Your task to perform on an android device: Open a new incognito window in the chrome app Image 0: 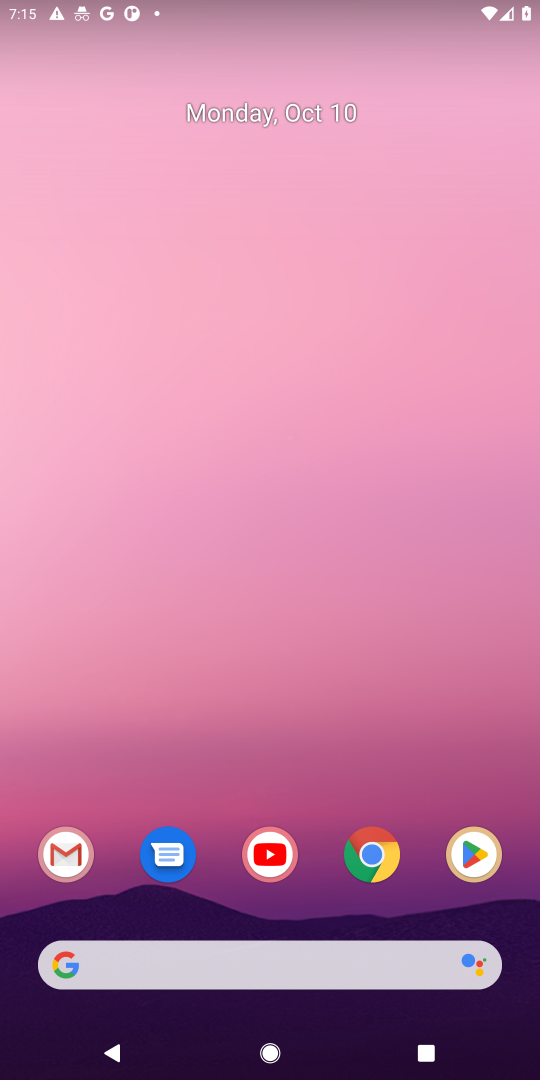
Step 0: click (375, 831)
Your task to perform on an android device: Open a new incognito window in the chrome app Image 1: 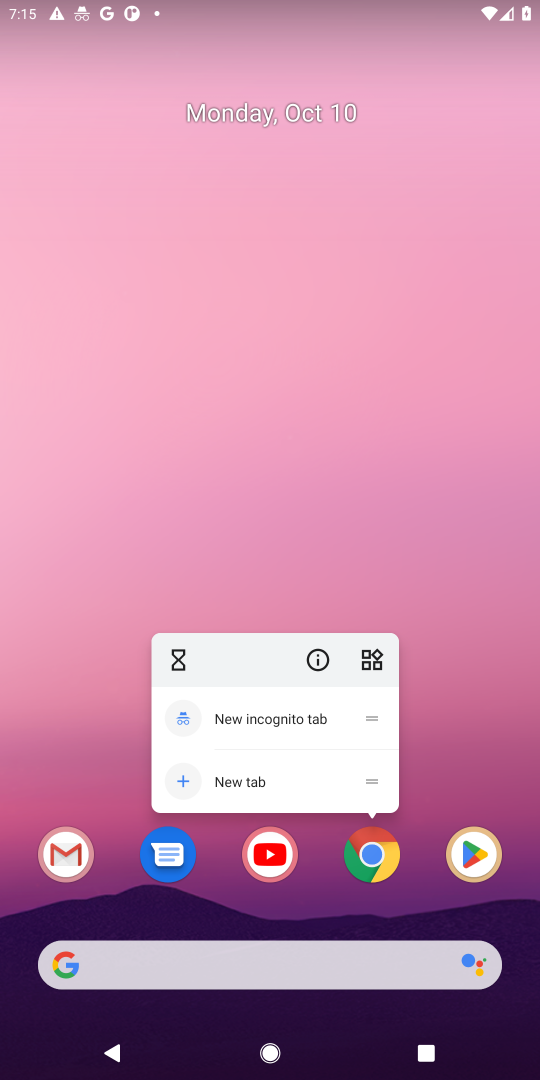
Step 1: click (372, 846)
Your task to perform on an android device: Open a new incognito window in the chrome app Image 2: 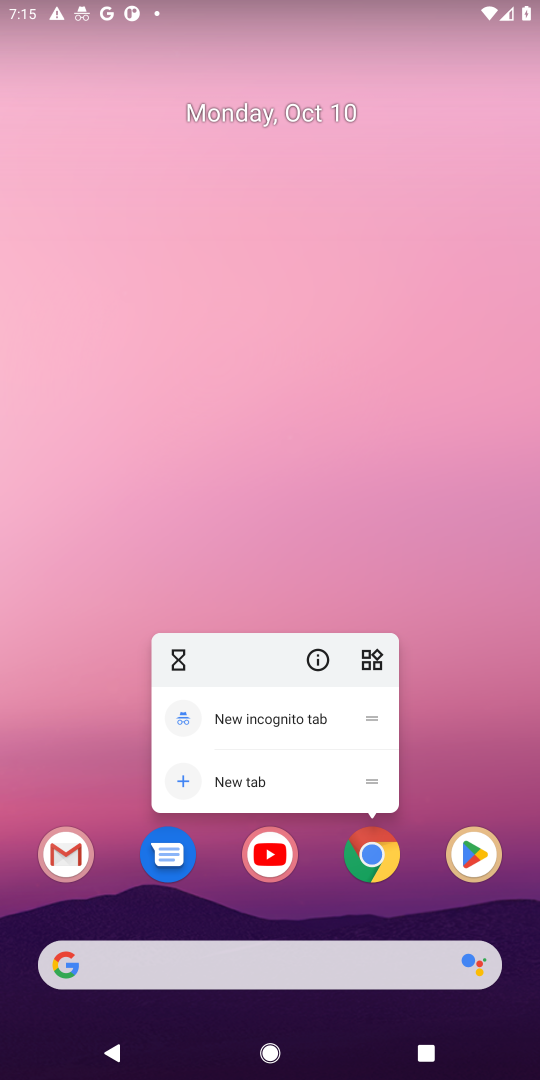
Step 2: click (372, 844)
Your task to perform on an android device: Open a new incognito window in the chrome app Image 3: 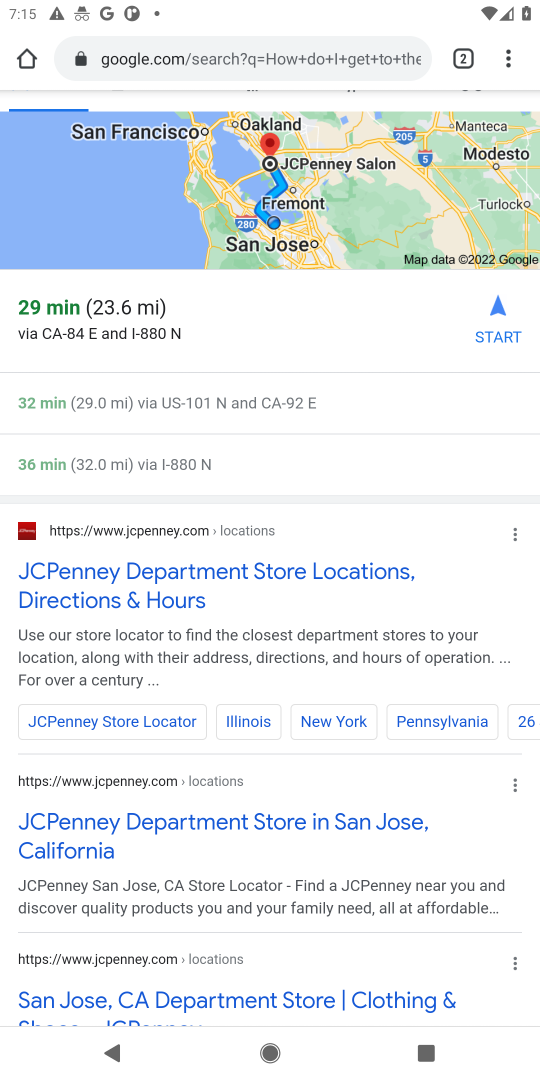
Step 3: task complete